Your task to perform on an android device: toggle location history Image 0: 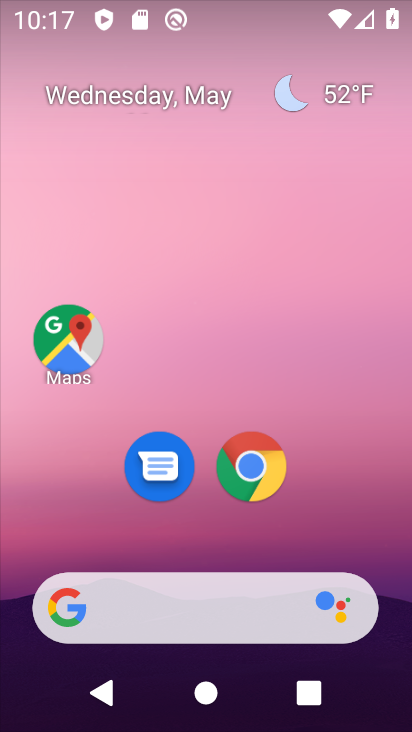
Step 0: drag from (214, 534) to (275, 82)
Your task to perform on an android device: toggle location history Image 1: 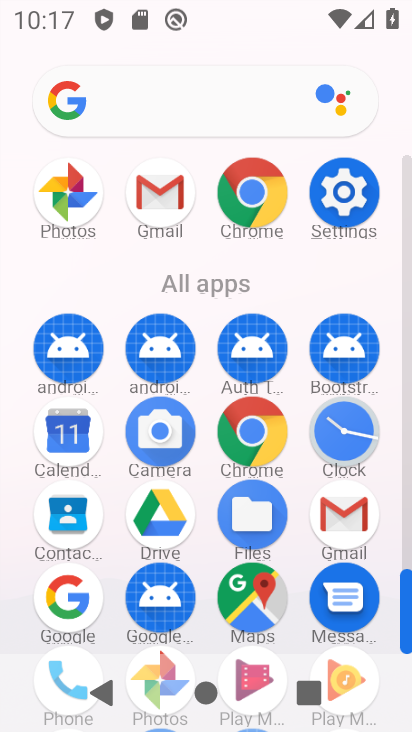
Step 1: click (339, 194)
Your task to perform on an android device: toggle location history Image 2: 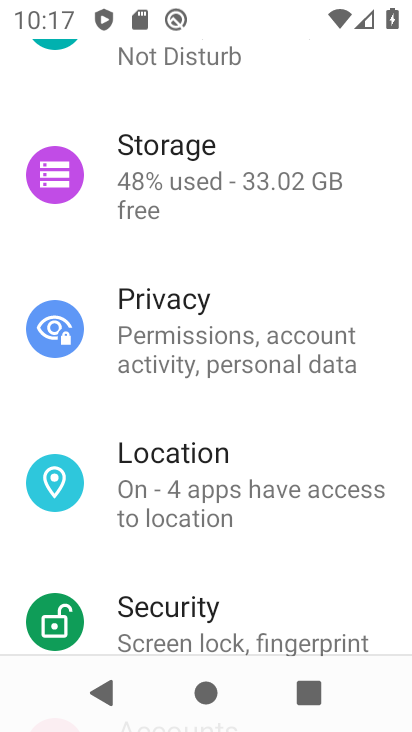
Step 2: click (200, 483)
Your task to perform on an android device: toggle location history Image 3: 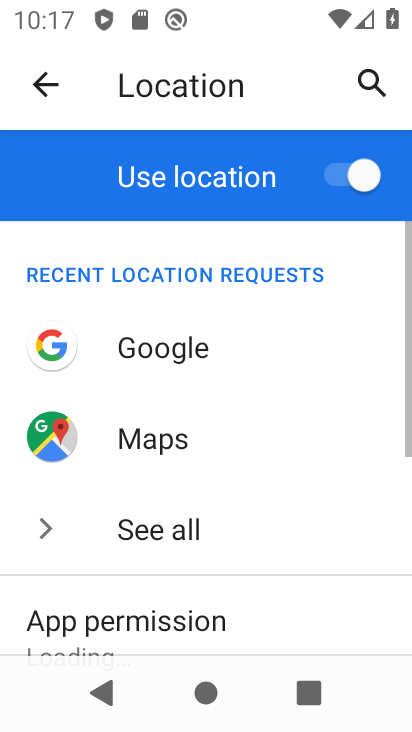
Step 3: drag from (241, 541) to (199, 77)
Your task to perform on an android device: toggle location history Image 4: 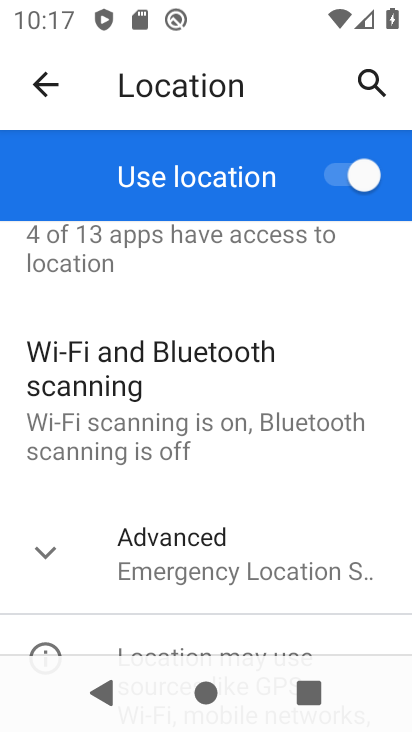
Step 4: click (167, 539)
Your task to perform on an android device: toggle location history Image 5: 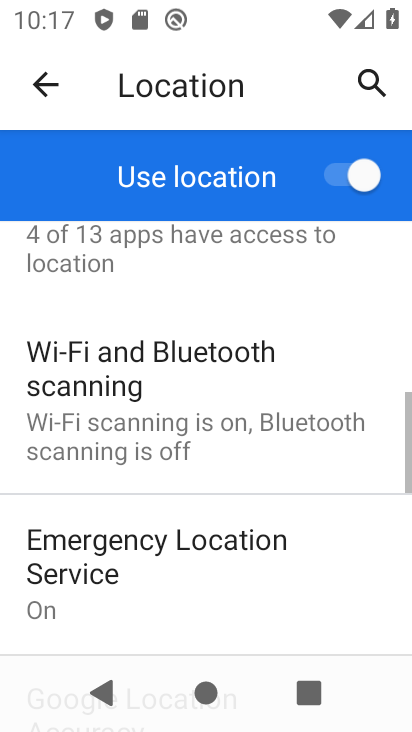
Step 5: drag from (220, 553) to (230, 156)
Your task to perform on an android device: toggle location history Image 6: 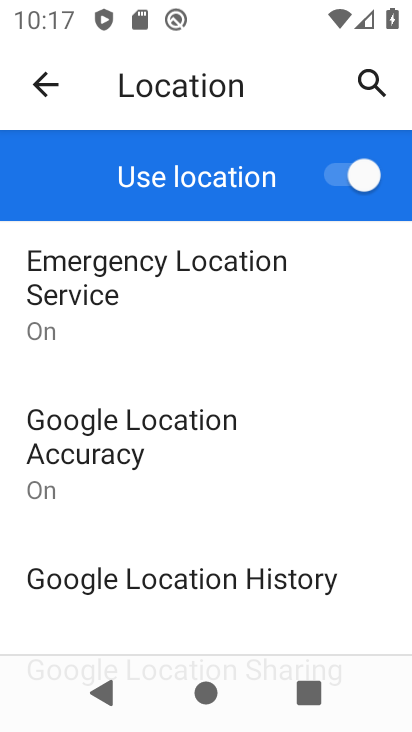
Step 6: click (152, 580)
Your task to perform on an android device: toggle location history Image 7: 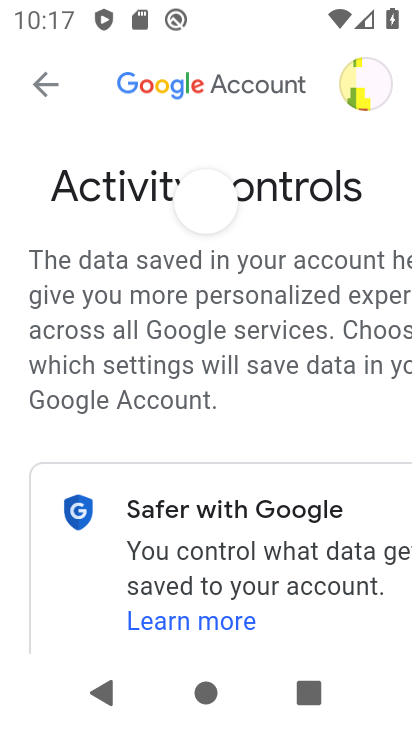
Step 7: drag from (290, 530) to (277, 142)
Your task to perform on an android device: toggle location history Image 8: 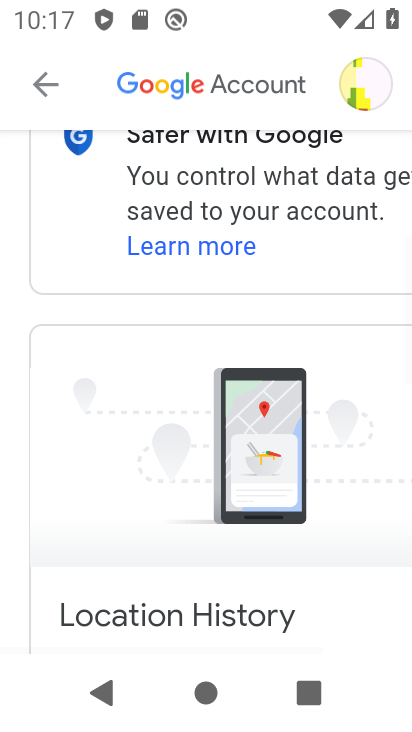
Step 8: drag from (322, 552) to (312, 68)
Your task to perform on an android device: toggle location history Image 9: 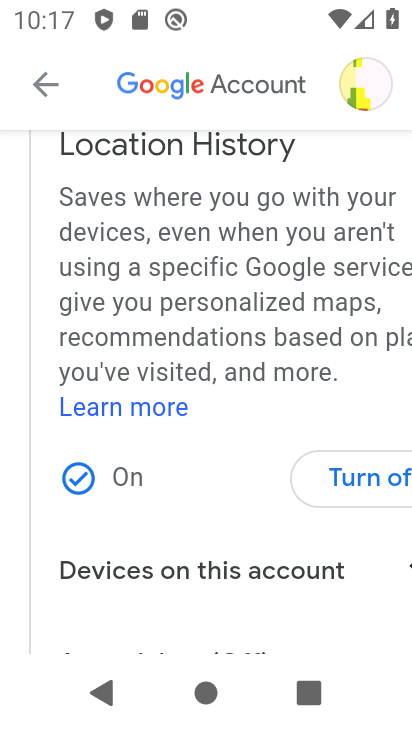
Step 9: click (346, 474)
Your task to perform on an android device: toggle location history Image 10: 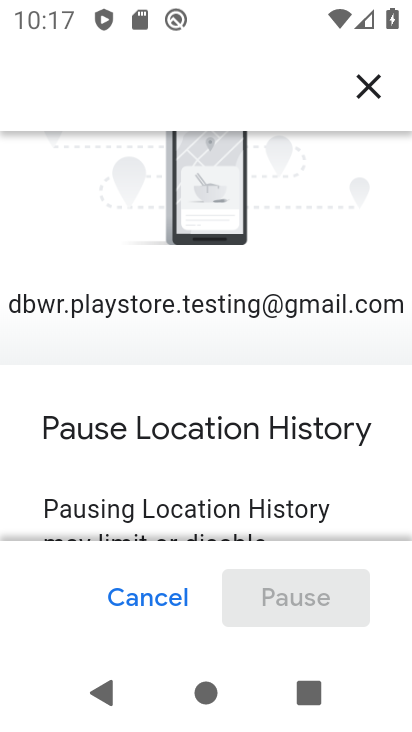
Step 10: drag from (350, 521) to (343, 2)
Your task to perform on an android device: toggle location history Image 11: 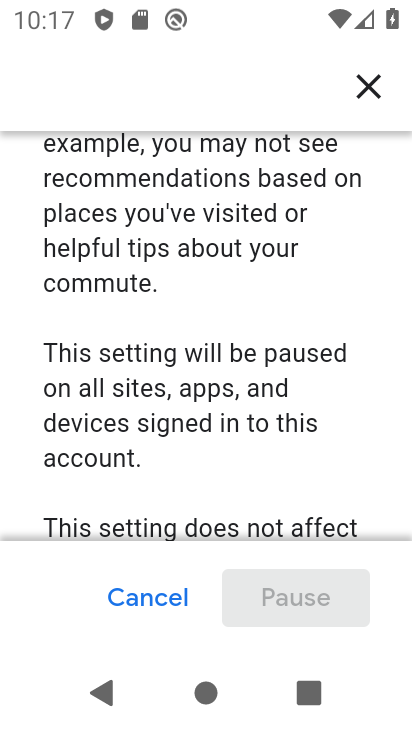
Step 11: drag from (318, 476) to (276, 0)
Your task to perform on an android device: toggle location history Image 12: 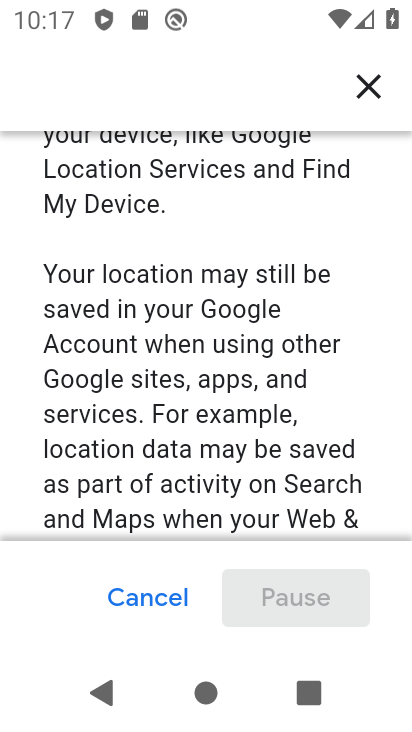
Step 12: drag from (306, 460) to (310, 75)
Your task to perform on an android device: toggle location history Image 13: 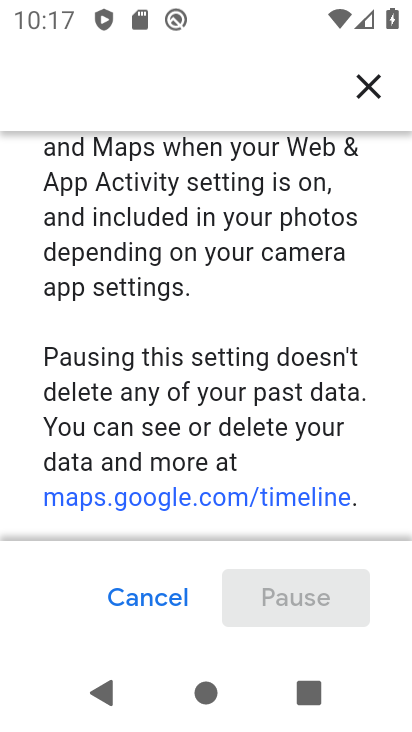
Step 13: drag from (300, 470) to (296, 155)
Your task to perform on an android device: toggle location history Image 14: 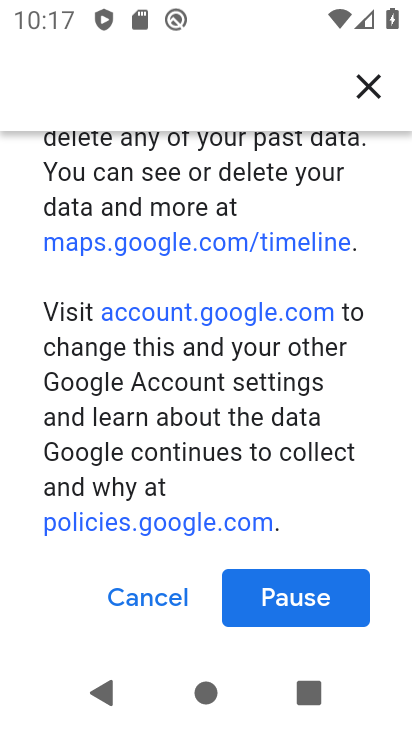
Step 14: click (293, 608)
Your task to perform on an android device: toggle location history Image 15: 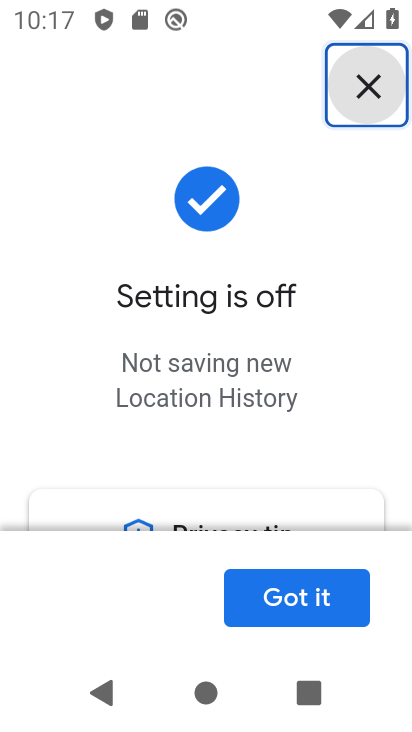
Step 15: click (296, 605)
Your task to perform on an android device: toggle location history Image 16: 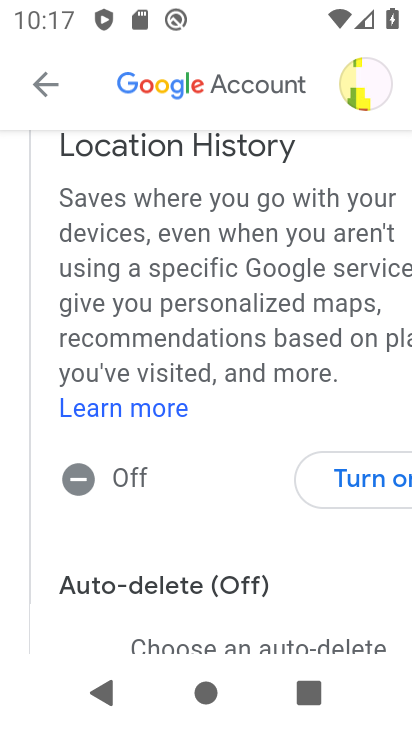
Step 16: task complete